Your task to perform on an android device: Clear all items from cart on costco.com. Search for energizer triple a on costco.com, select the first entry, and add it to the cart. Image 0: 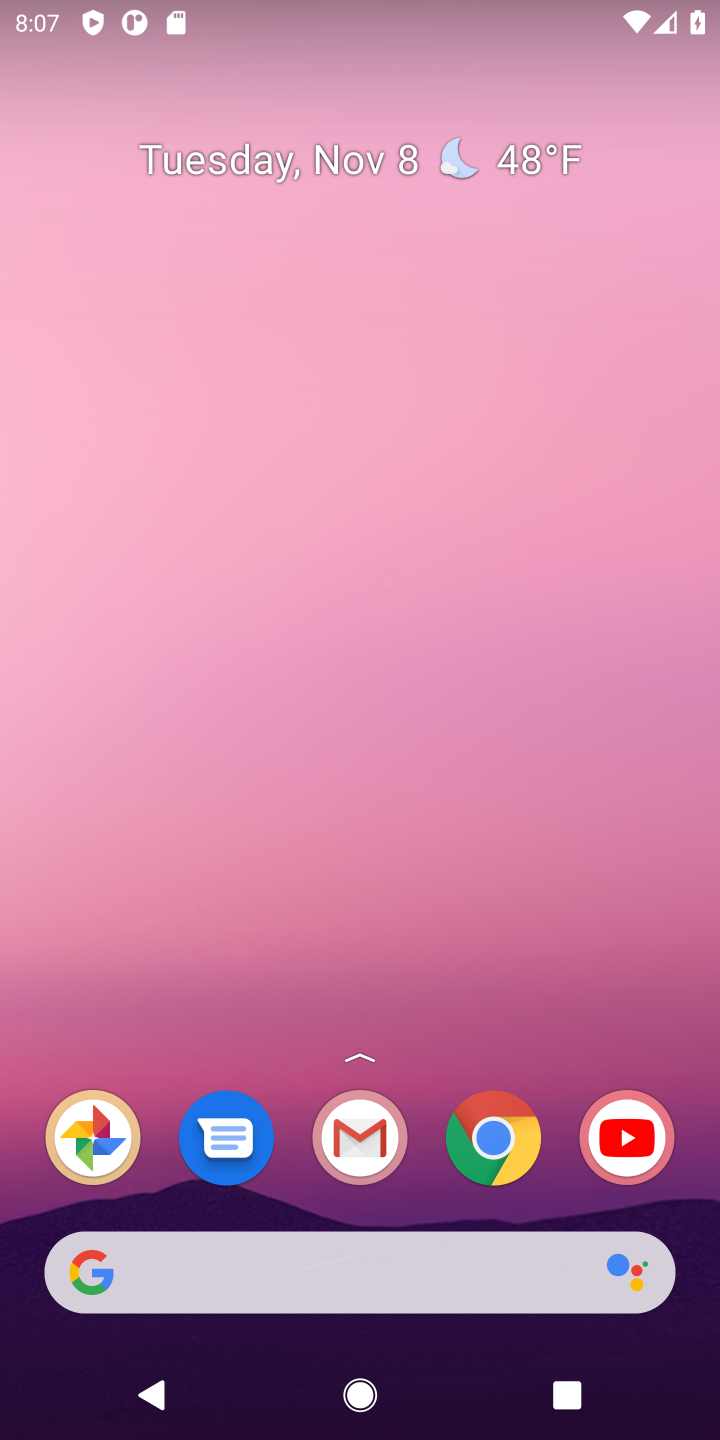
Step 0: click (505, 1148)
Your task to perform on an android device: Clear all items from cart on costco.com. Search for energizer triple a on costco.com, select the first entry, and add it to the cart. Image 1: 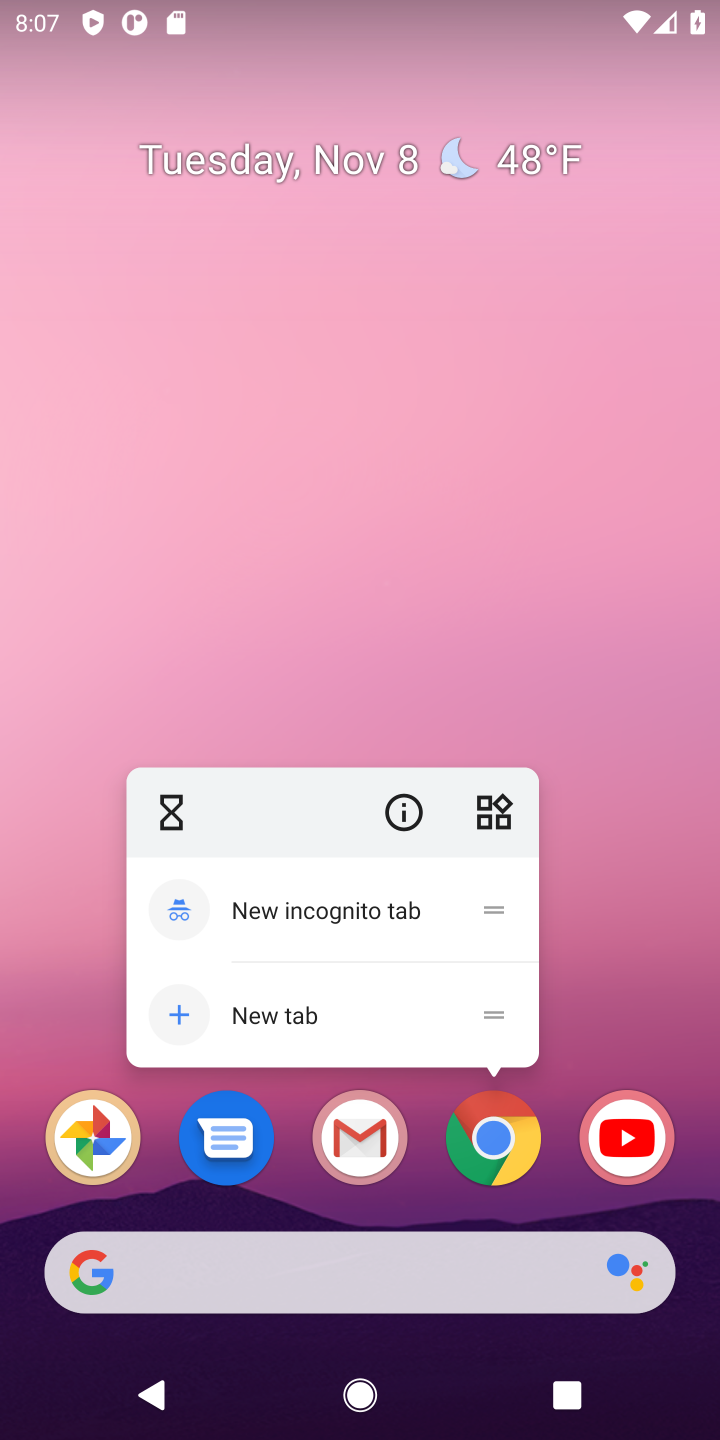
Step 1: click (476, 1131)
Your task to perform on an android device: Clear all items from cart on costco.com. Search for energizer triple a on costco.com, select the first entry, and add it to the cart. Image 2: 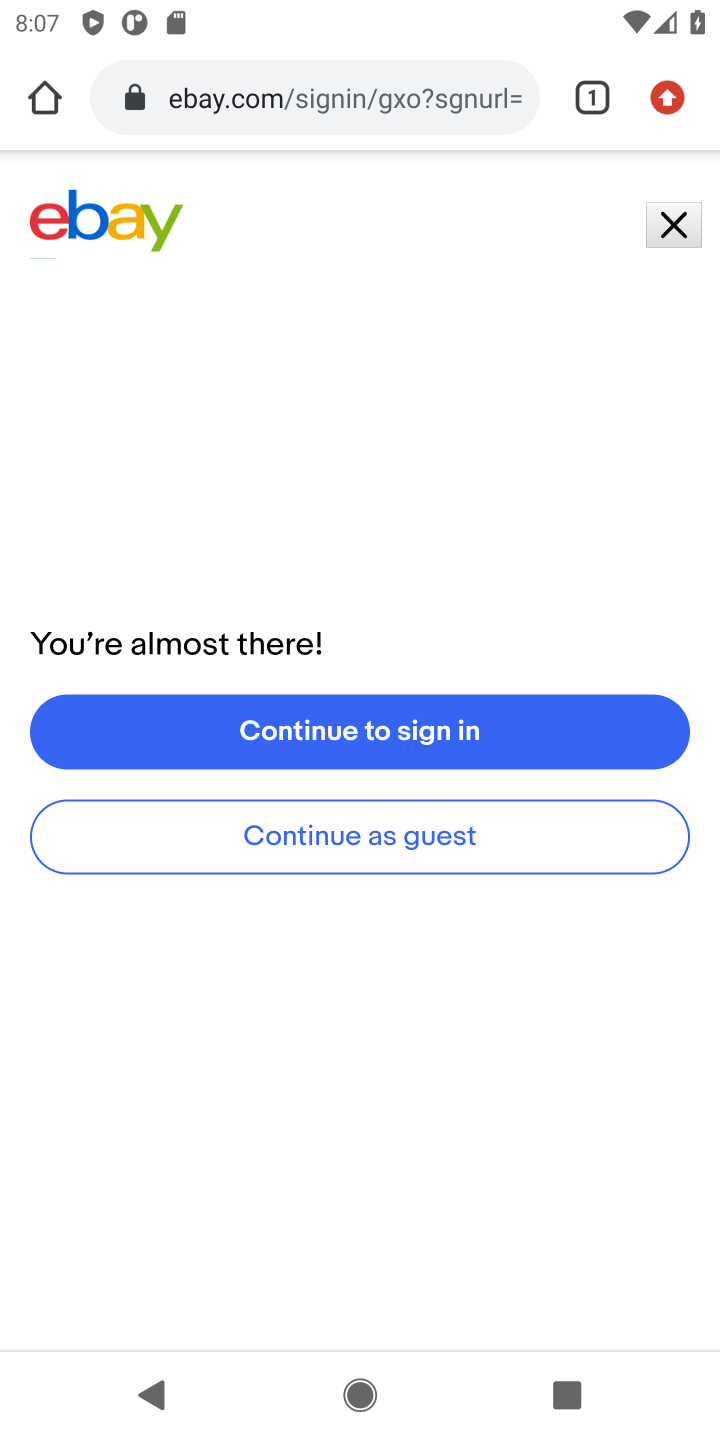
Step 2: click (324, 102)
Your task to perform on an android device: Clear all items from cart on costco.com. Search for energizer triple a on costco.com, select the first entry, and add it to the cart. Image 3: 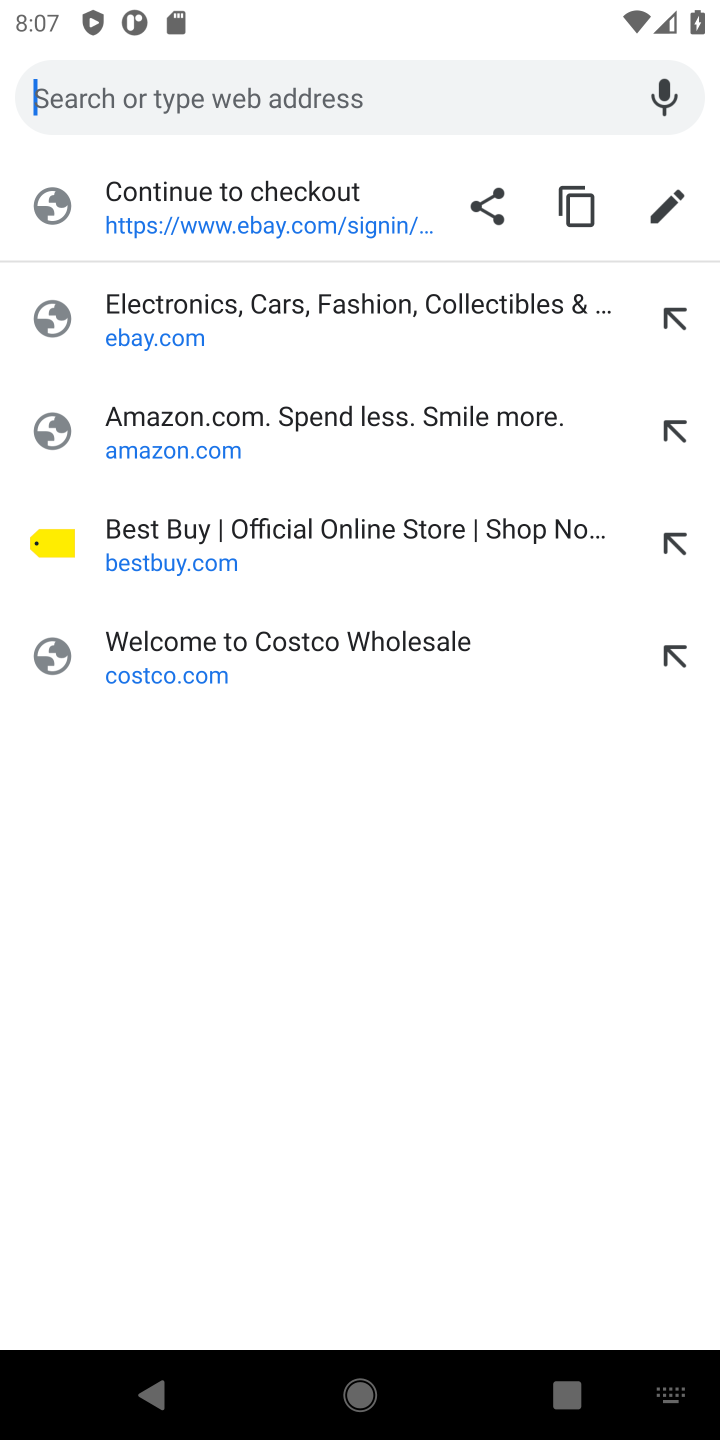
Step 3: type "costco.com"
Your task to perform on an android device: Clear all items from cart on costco.com. Search for energizer triple a on costco.com, select the first entry, and add it to the cart. Image 4: 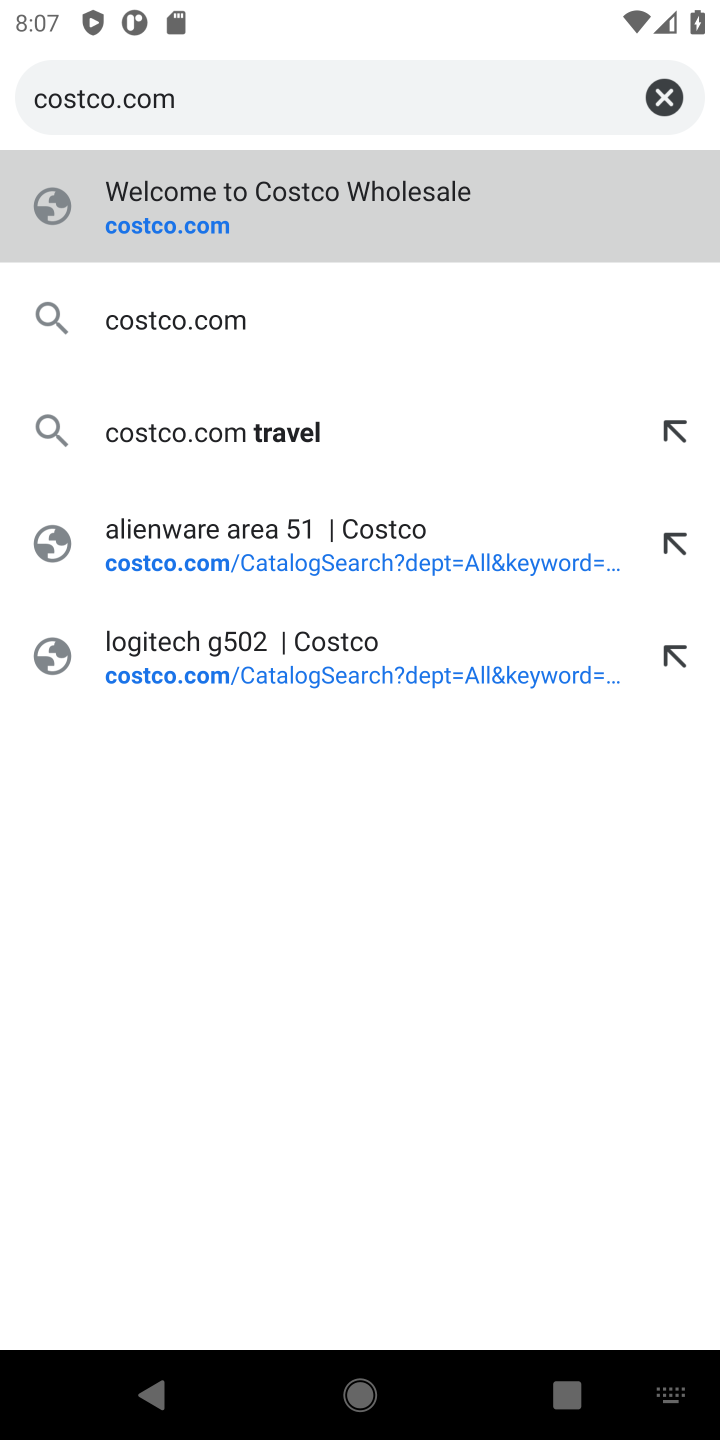
Step 4: press enter
Your task to perform on an android device: Clear all items from cart on costco.com. Search for energizer triple a on costco.com, select the first entry, and add it to the cart. Image 5: 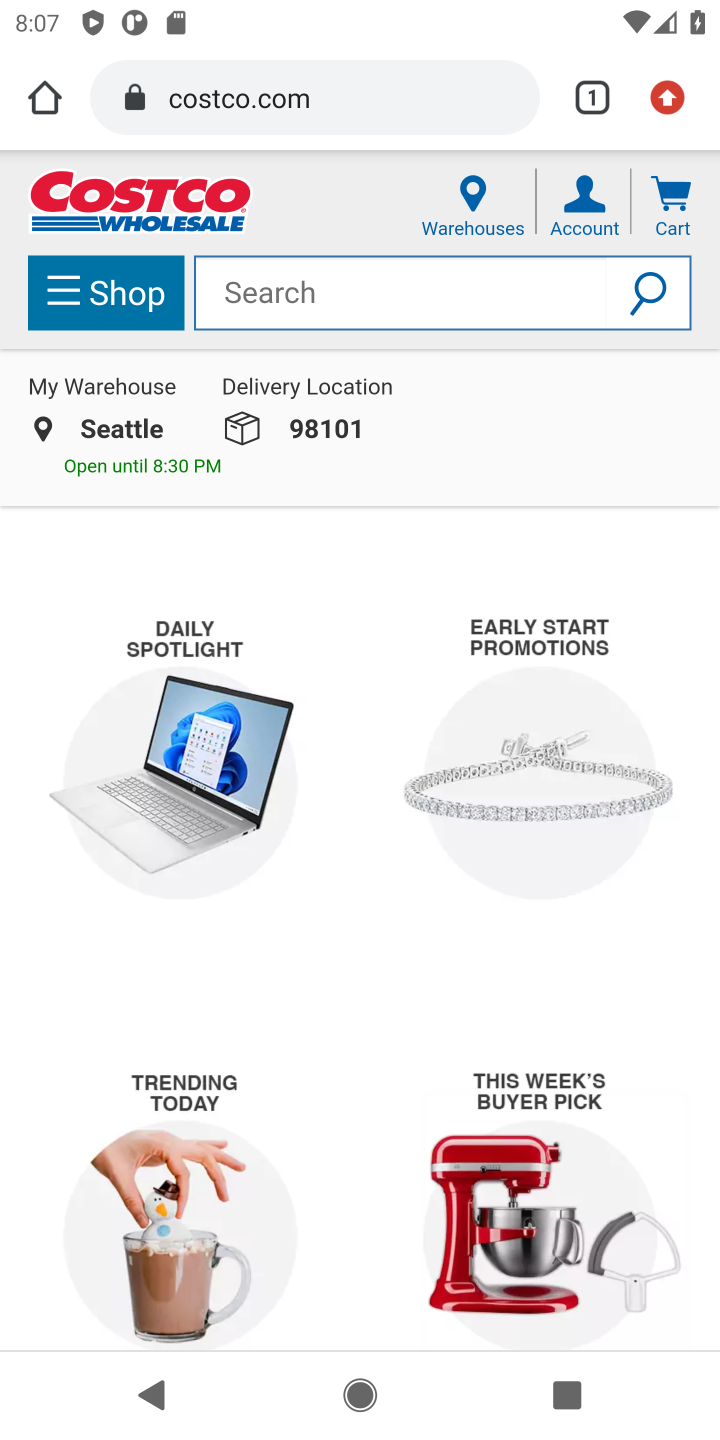
Step 5: click (331, 273)
Your task to perform on an android device: Clear all items from cart on costco.com. Search for energizer triple a on costco.com, select the first entry, and add it to the cart. Image 6: 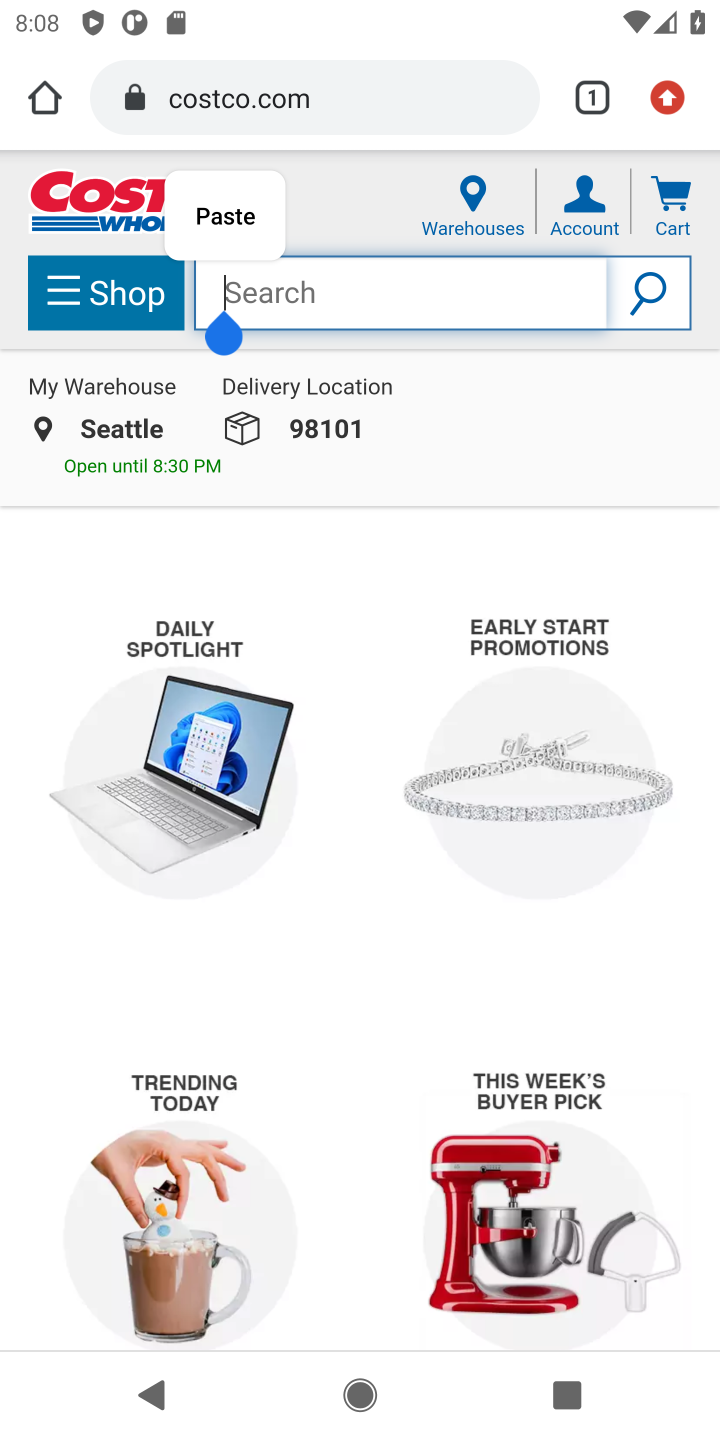
Step 6: type " energizer triple a"
Your task to perform on an android device: Clear all items from cart on costco.com. Search for energizer triple a on costco.com, select the first entry, and add it to the cart. Image 7: 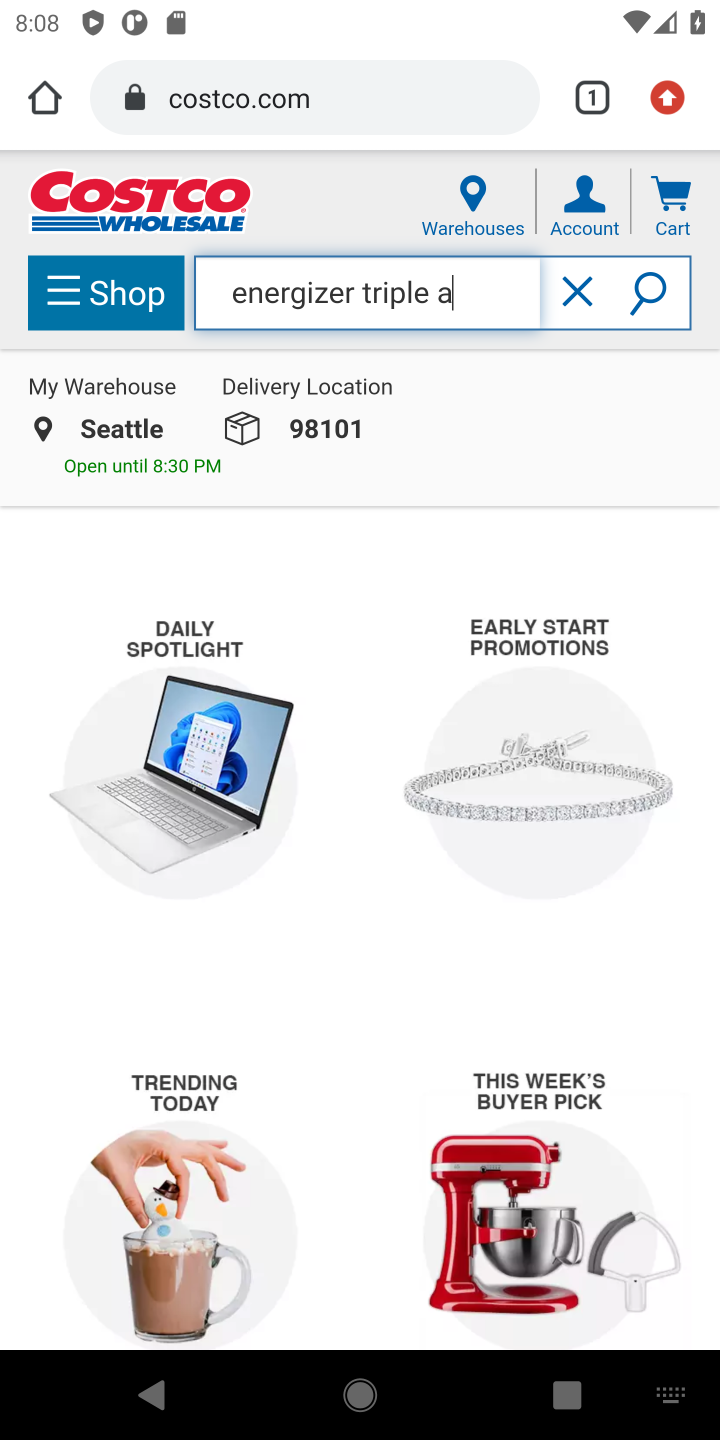
Step 7: press enter
Your task to perform on an android device: Clear all items from cart on costco.com. Search for energizer triple a on costco.com, select the first entry, and add it to the cart. Image 8: 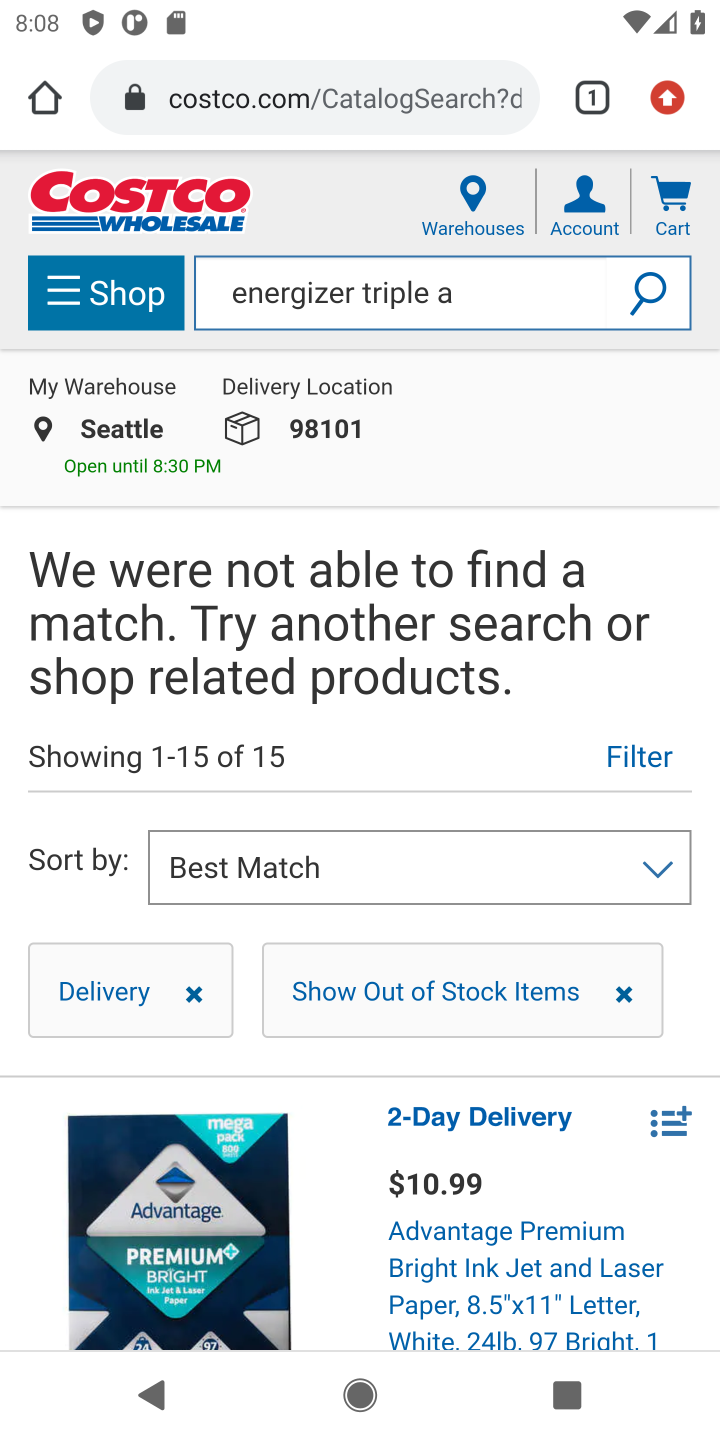
Step 8: task complete